Your task to perform on an android device: Go to eBay Image 0: 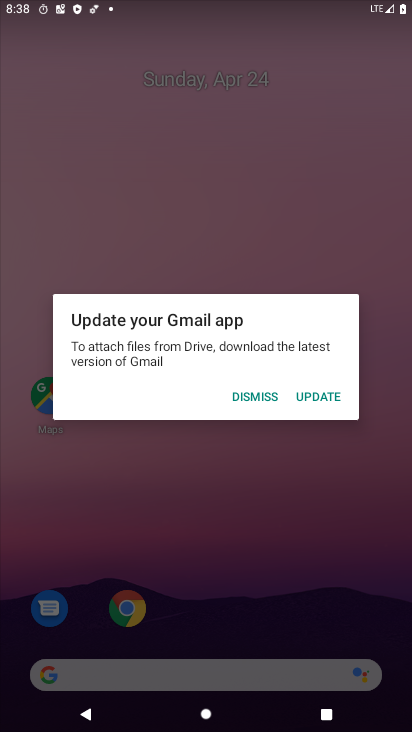
Step 0: press home button
Your task to perform on an android device: Go to eBay Image 1: 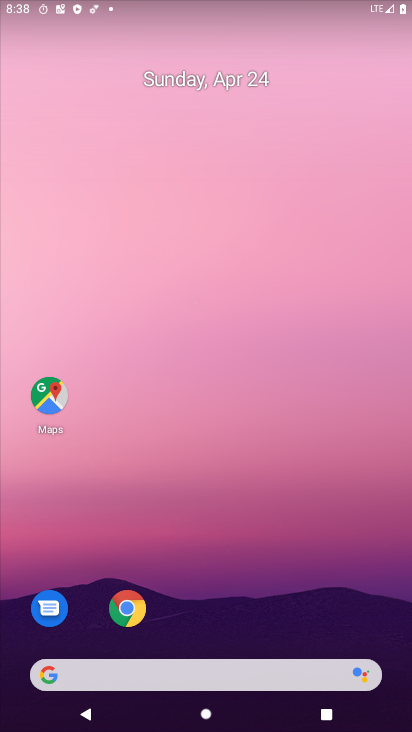
Step 1: click (280, 672)
Your task to perform on an android device: Go to eBay Image 2: 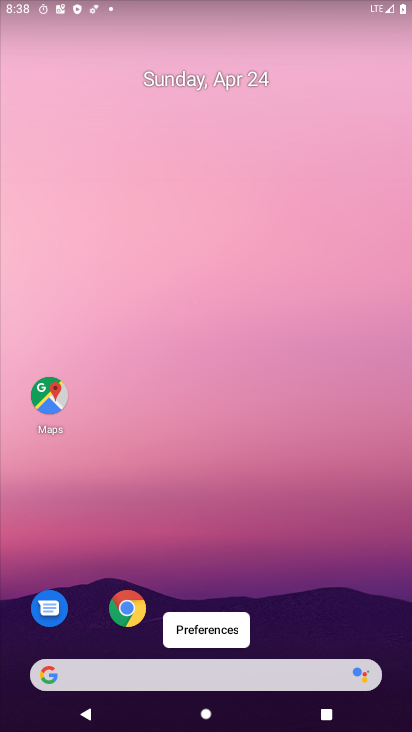
Step 2: click (284, 674)
Your task to perform on an android device: Go to eBay Image 3: 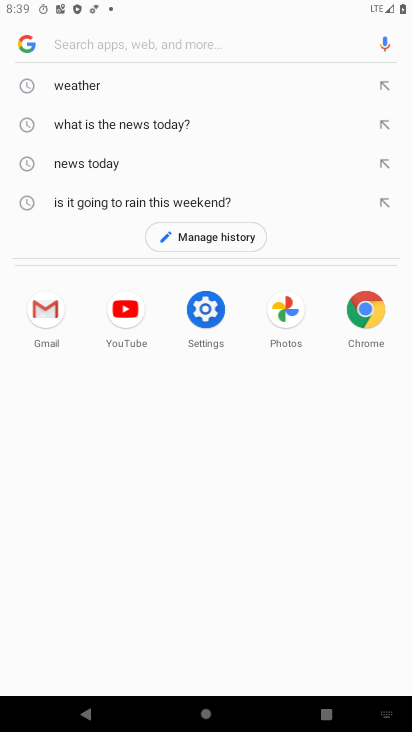
Step 3: type "ebay"
Your task to perform on an android device: Go to eBay Image 4: 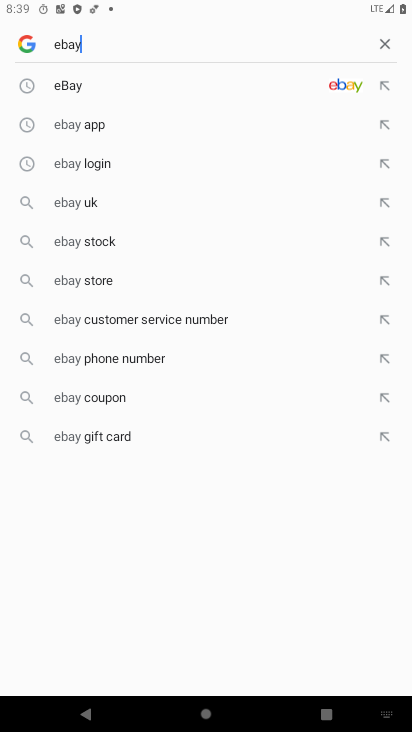
Step 4: click (323, 86)
Your task to perform on an android device: Go to eBay Image 5: 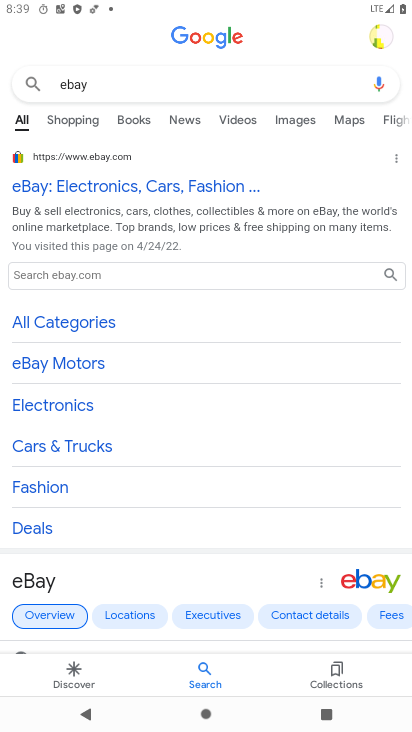
Step 5: click (224, 177)
Your task to perform on an android device: Go to eBay Image 6: 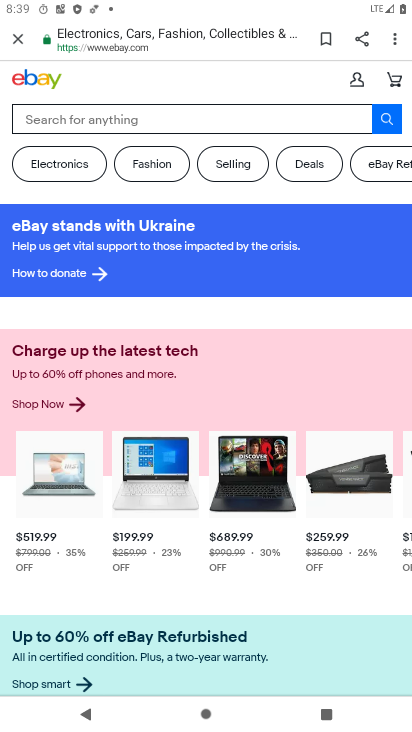
Step 6: task complete